Your task to perform on an android device: turn off improve location accuracy Image 0: 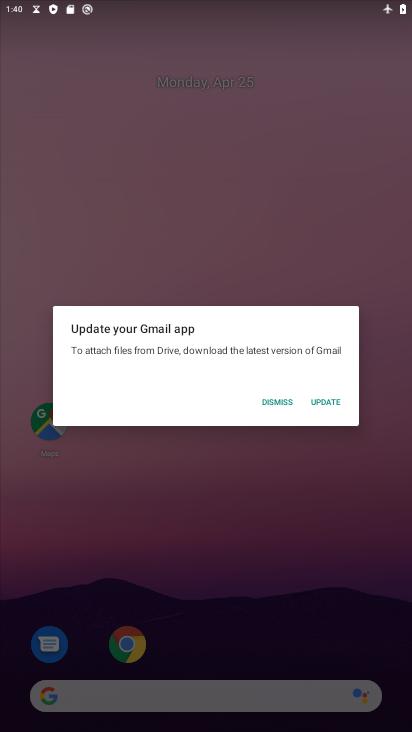
Step 0: press home button
Your task to perform on an android device: turn off improve location accuracy Image 1: 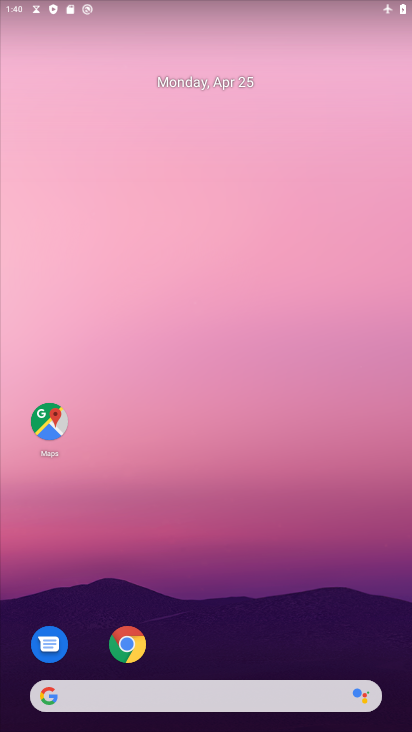
Step 1: drag from (354, 620) to (349, 90)
Your task to perform on an android device: turn off improve location accuracy Image 2: 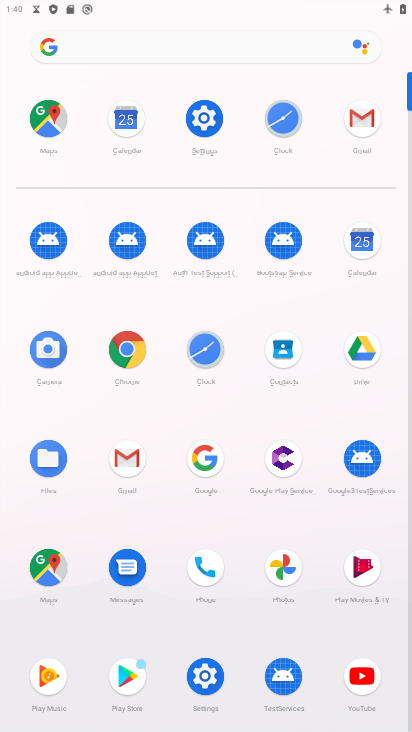
Step 2: click (203, 117)
Your task to perform on an android device: turn off improve location accuracy Image 3: 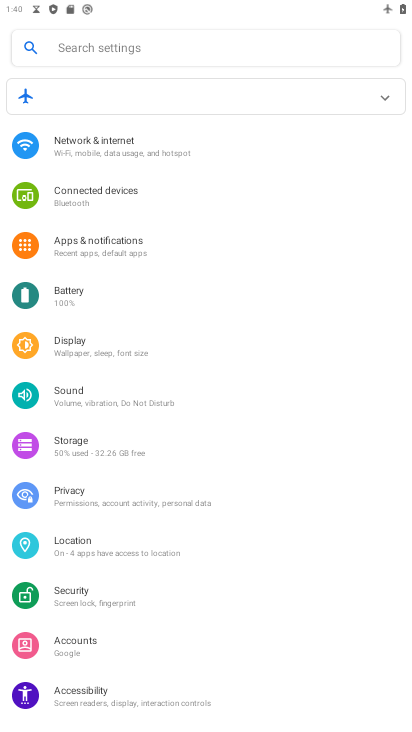
Step 3: click (60, 548)
Your task to perform on an android device: turn off improve location accuracy Image 4: 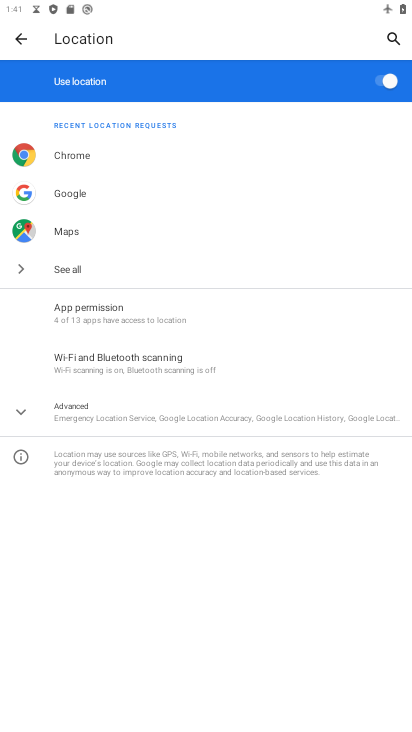
Step 4: click (21, 410)
Your task to perform on an android device: turn off improve location accuracy Image 5: 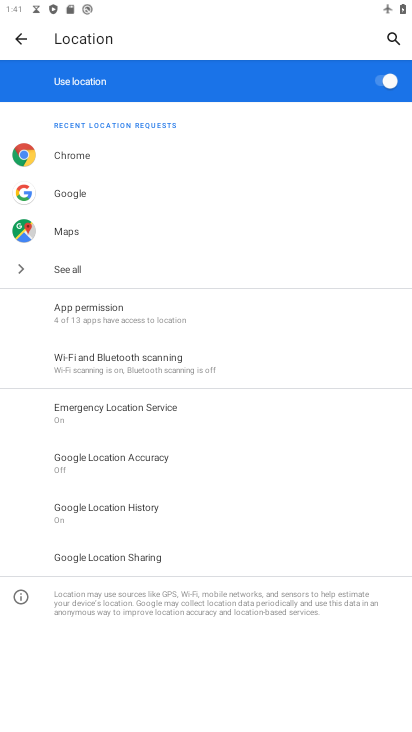
Step 5: click (99, 463)
Your task to perform on an android device: turn off improve location accuracy Image 6: 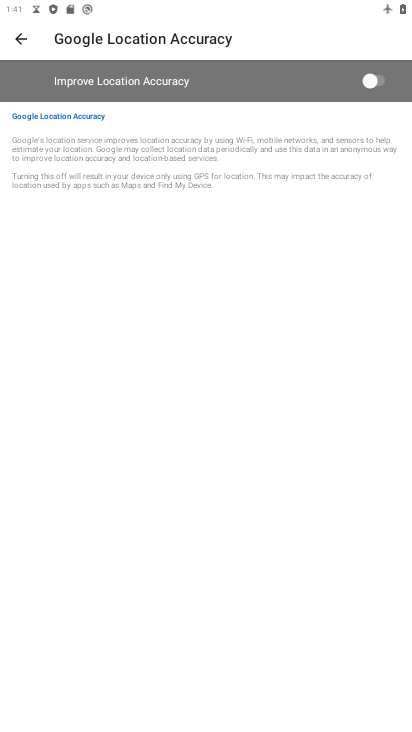
Step 6: task complete